Your task to perform on an android device: Go to wifi settings Image 0: 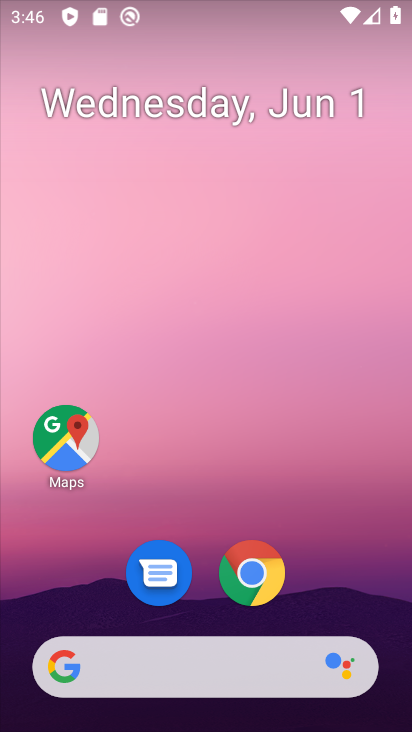
Step 0: drag from (113, 544) to (206, 125)
Your task to perform on an android device: Go to wifi settings Image 1: 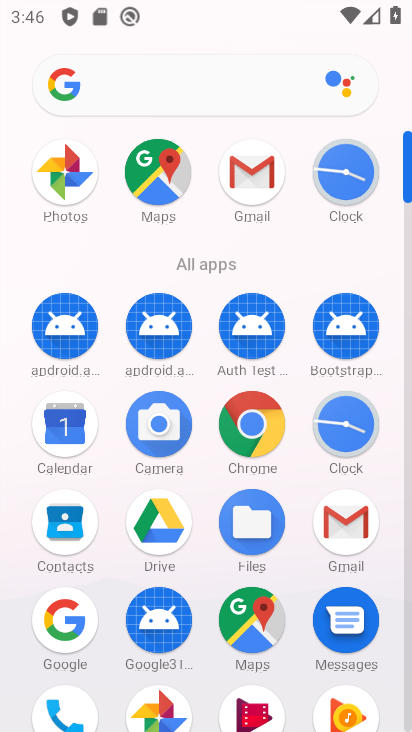
Step 1: drag from (188, 614) to (252, 353)
Your task to perform on an android device: Go to wifi settings Image 2: 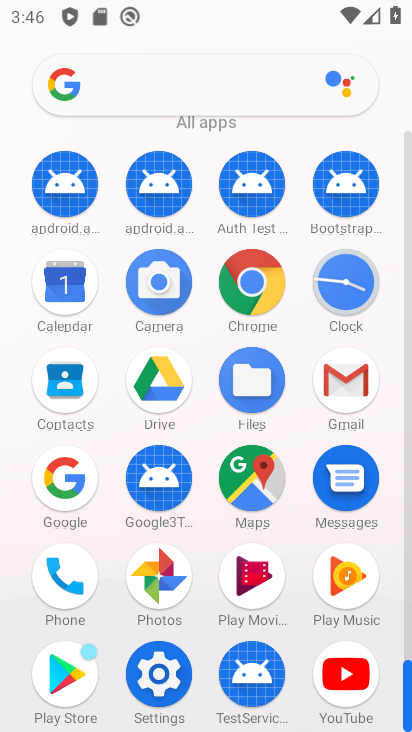
Step 2: click (156, 681)
Your task to perform on an android device: Go to wifi settings Image 3: 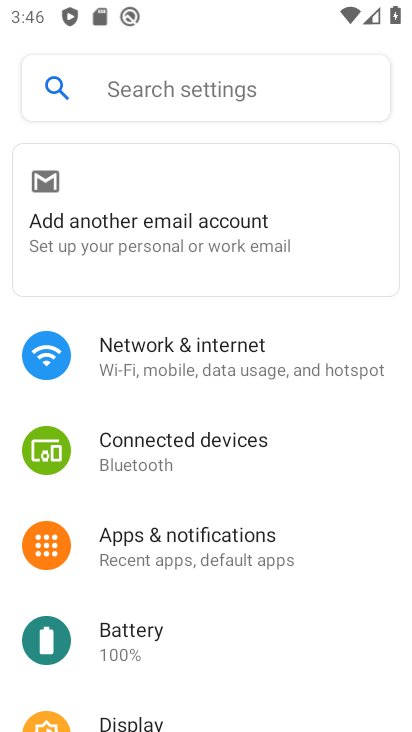
Step 3: click (285, 333)
Your task to perform on an android device: Go to wifi settings Image 4: 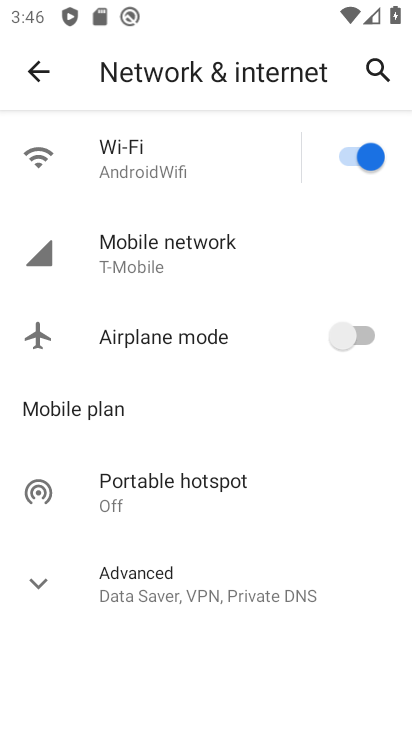
Step 4: click (149, 177)
Your task to perform on an android device: Go to wifi settings Image 5: 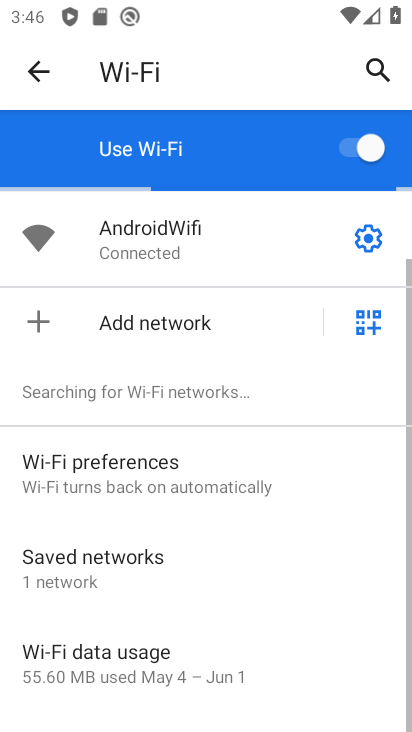
Step 5: task complete